Your task to perform on an android device: toggle pop-ups in chrome Image 0: 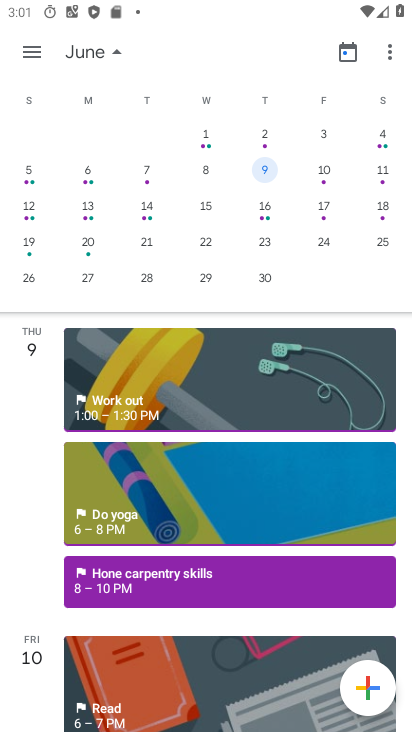
Step 0: press home button
Your task to perform on an android device: toggle pop-ups in chrome Image 1: 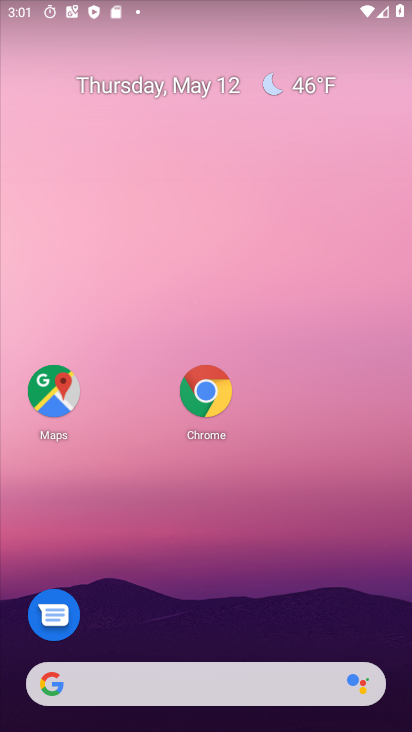
Step 1: click (196, 388)
Your task to perform on an android device: toggle pop-ups in chrome Image 2: 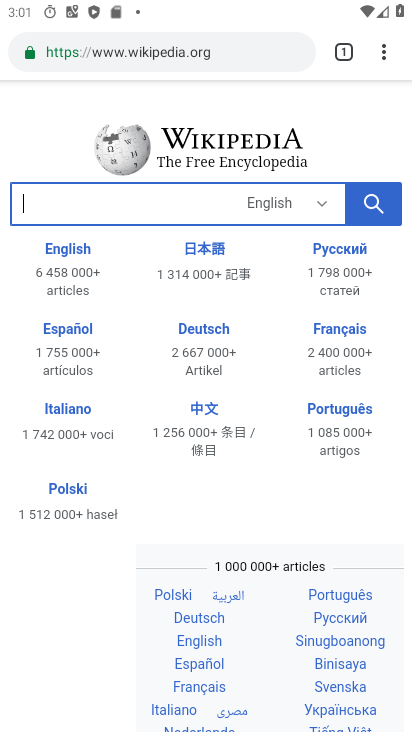
Step 2: click (372, 55)
Your task to perform on an android device: toggle pop-ups in chrome Image 3: 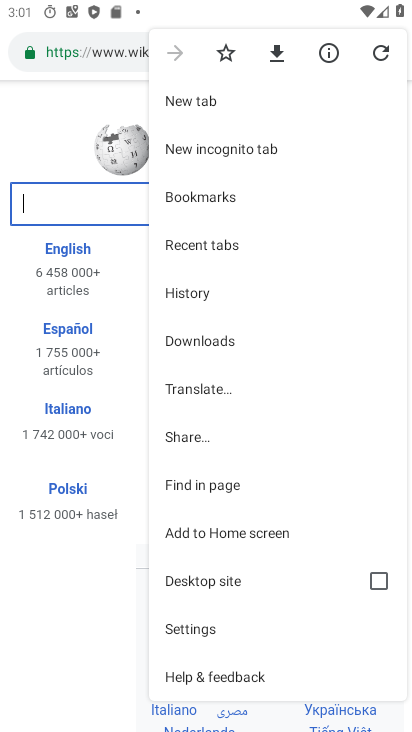
Step 3: drag from (240, 526) to (256, 271)
Your task to perform on an android device: toggle pop-ups in chrome Image 4: 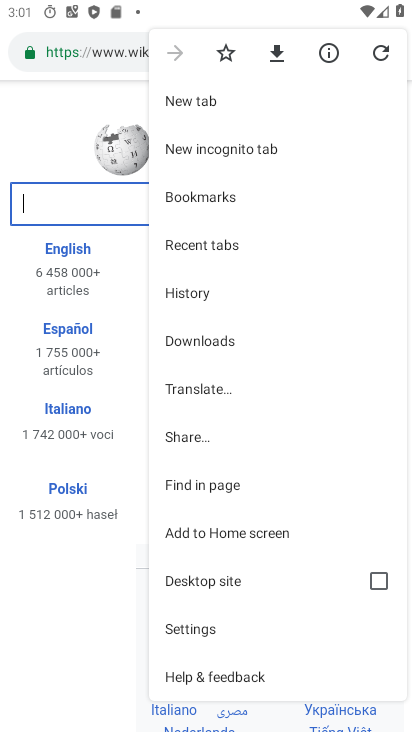
Step 4: click (214, 622)
Your task to perform on an android device: toggle pop-ups in chrome Image 5: 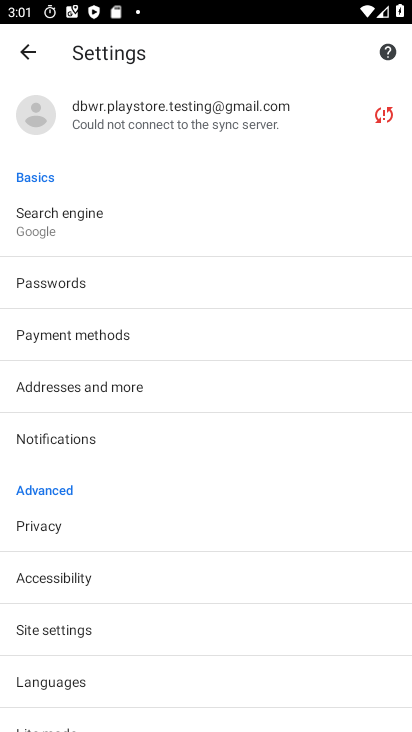
Step 5: click (72, 625)
Your task to perform on an android device: toggle pop-ups in chrome Image 6: 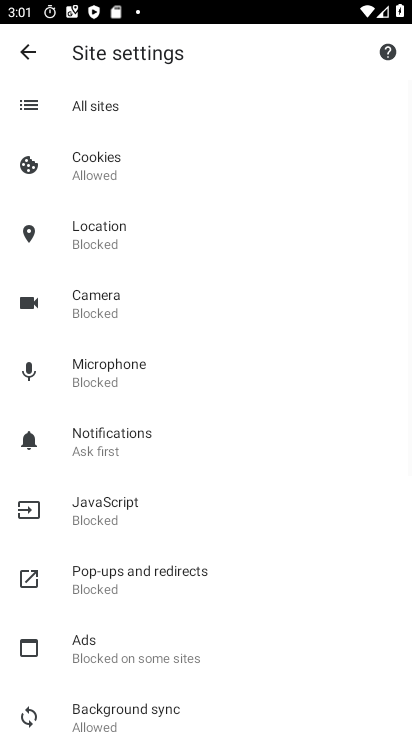
Step 6: click (147, 588)
Your task to perform on an android device: toggle pop-ups in chrome Image 7: 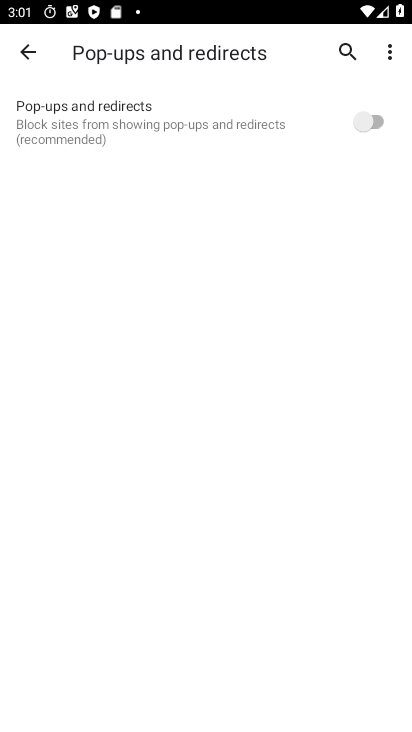
Step 7: click (369, 116)
Your task to perform on an android device: toggle pop-ups in chrome Image 8: 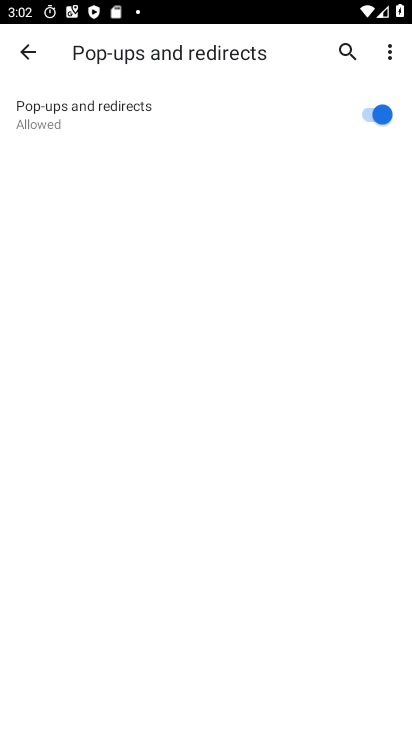
Step 8: task complete